Your task to perform on an android device: Open the web browser Image 0: 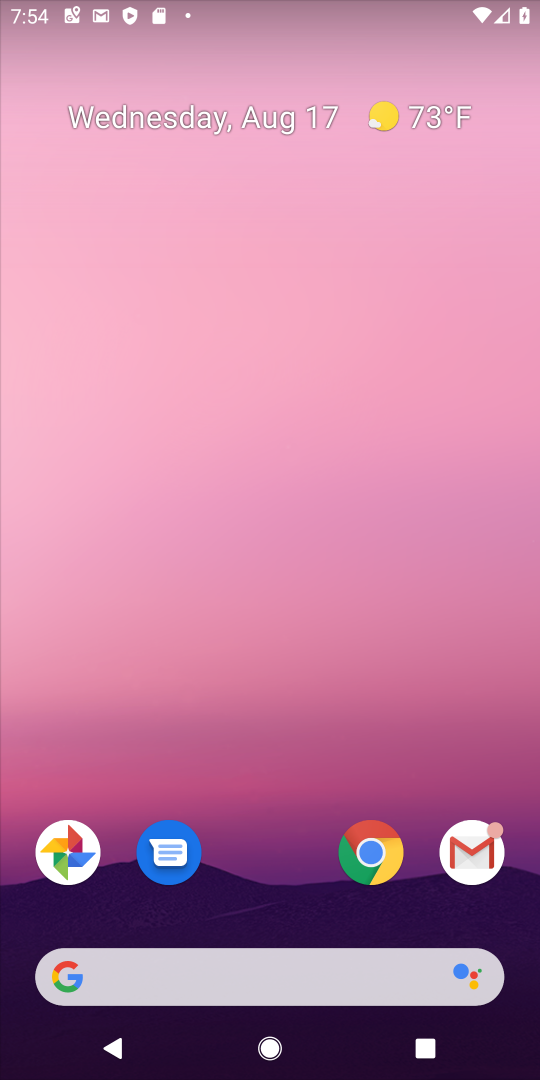
Step 0: click (371, 856)
Your task to perform on an android device: Open the web browser Image 1: 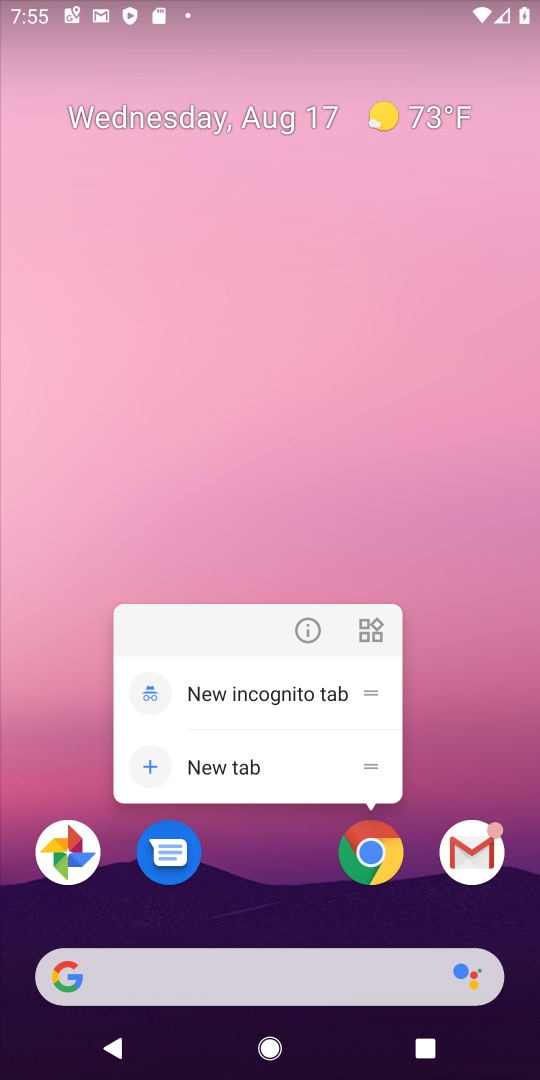
Step 1: click (369, 850)
Your task to perform on an android device: Open the web browser Image 2: 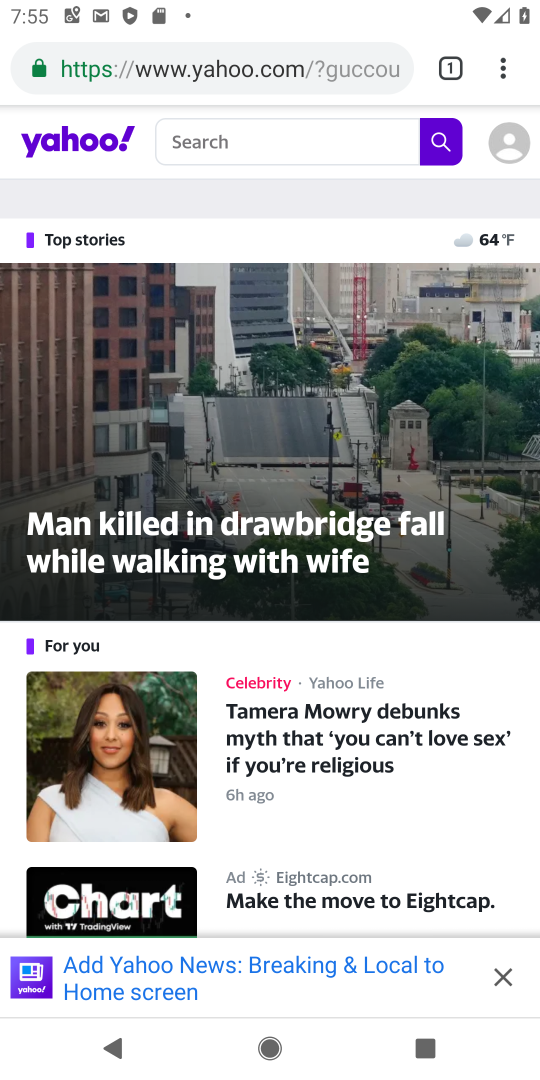
Step 2: task complete